Your task to perform on an android device: What's the weather today? Image 0: 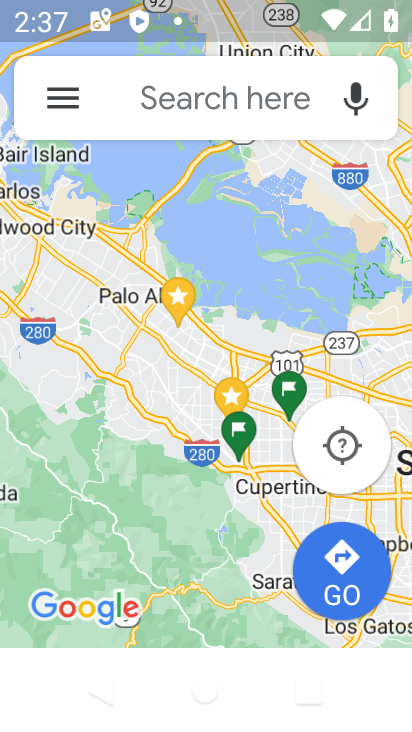
Step 0: press home button
Your task to perform on an android device: What's the weather today? Image 1: 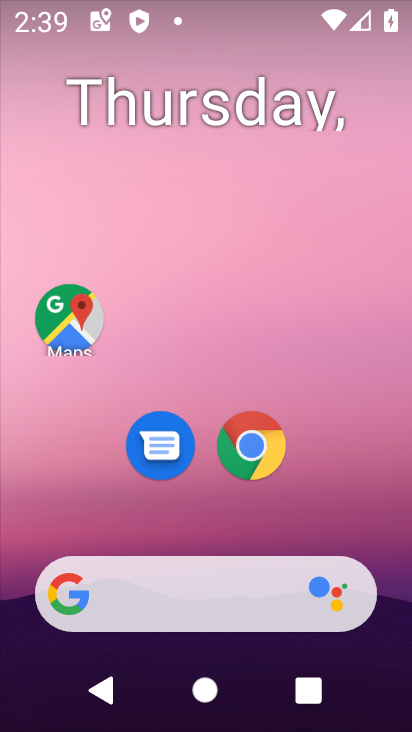
Step 1: click (151, 599)
Your task to perform on an android device: What's the weather today? Image 2: 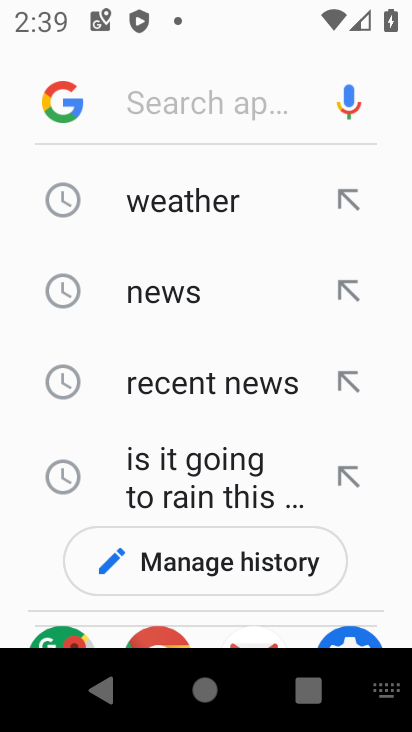
Step 2: click (165, 212)
Your task to perform on an android device: What's the weather today? Image 3: 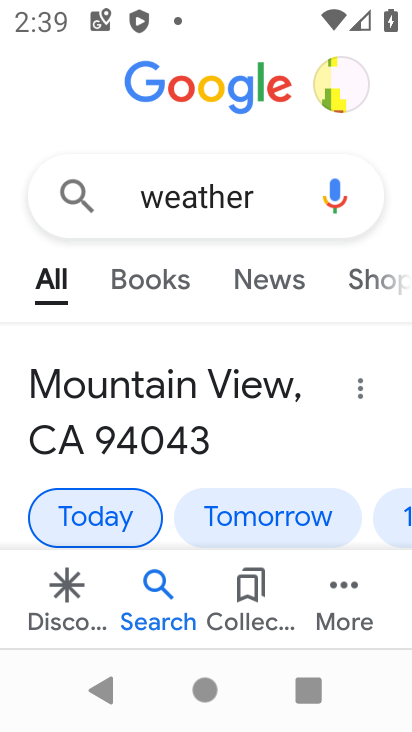
Step 3: click (93, 520)
Your task to perform on an android device: What's the weather today? Image 4: 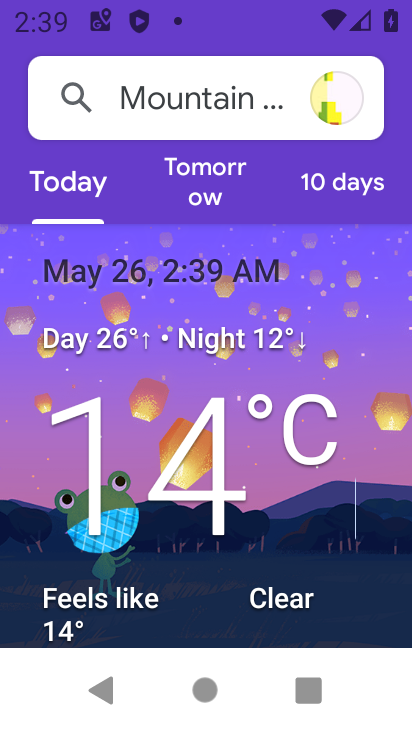
Step 4: task complete